Your task to perform on an android device: change keyboard looks Image 0: 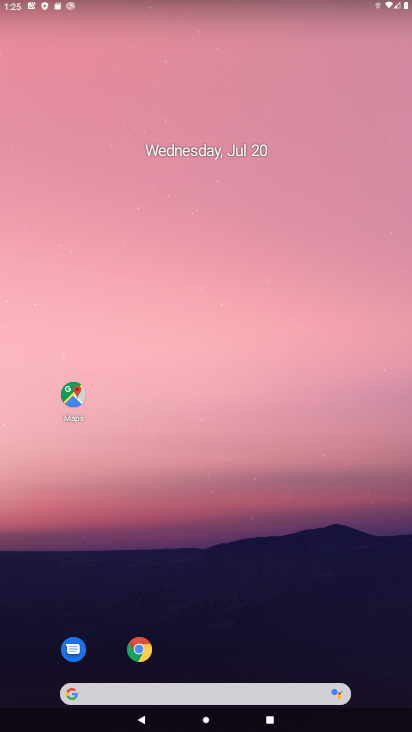
Step 0: press home button
Your task to perform on an android device: change keyboard looks Image 1: 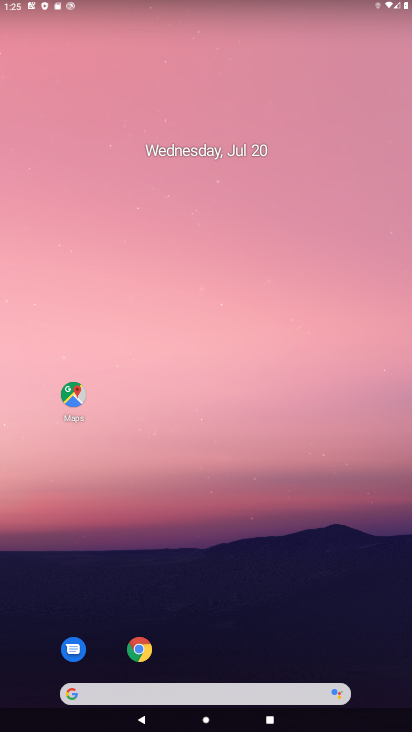
Step 1: press home button
Your task to perform on an android device: change keyboard looks Image 2: 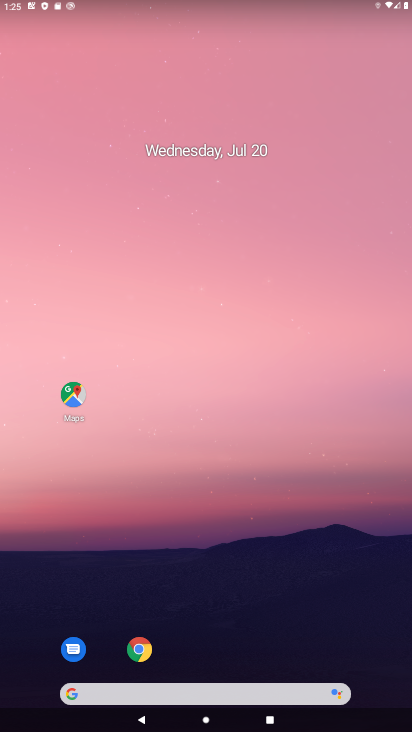
Step 2: press home button
Your task to perform on an android device: change keyboard looks Image 3: 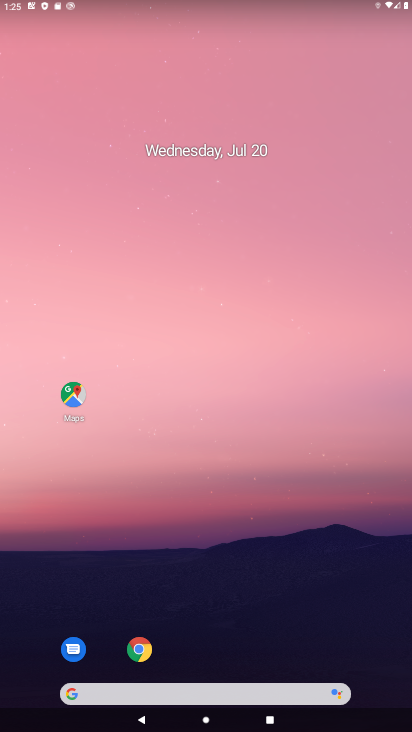
Step 3: drag from (315, 646) to (386, 24)
Your task to perform on an android device: change keyboard looks Image 4: 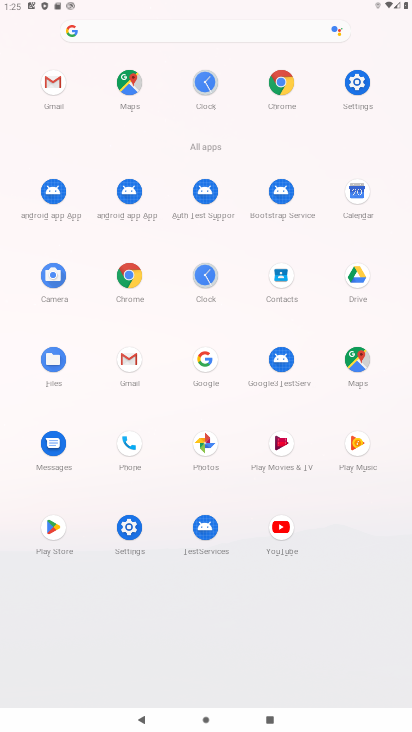
Step 4: click (127, 548)
Your task to perform on an android device: change keyboard looks Image 5: 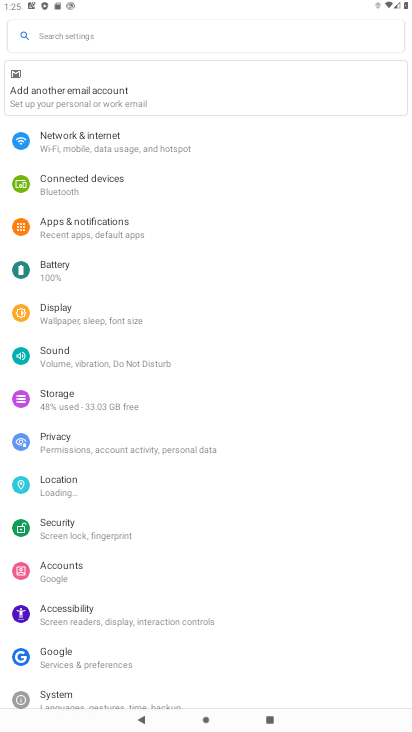
Step 5: drag from (131, 585) to (276, 265)
Your task to perform on an android device: change keyboard looks Image 6: 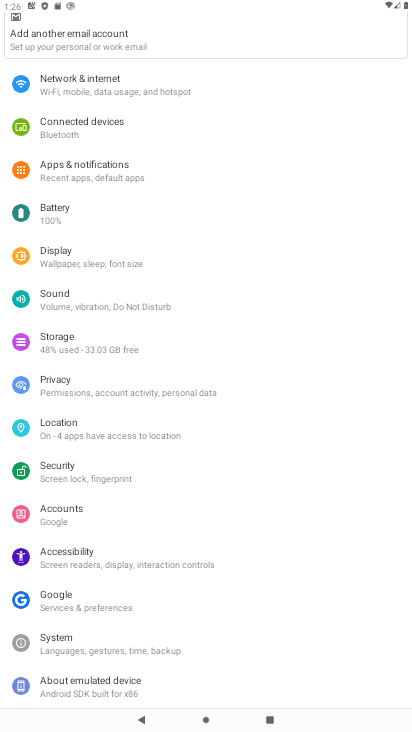
Step 6: click (129, 691)
Your task to perform on an android device: change keyboard looks Image 7: 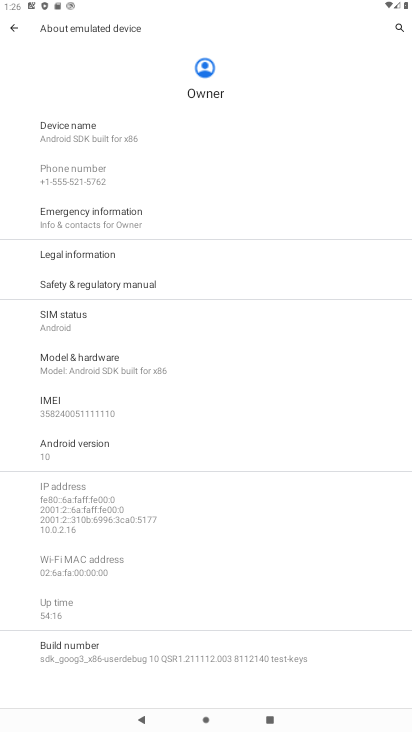
Step 7: press back button
Your task to perform on an android device: change keyboard looks Image 8: 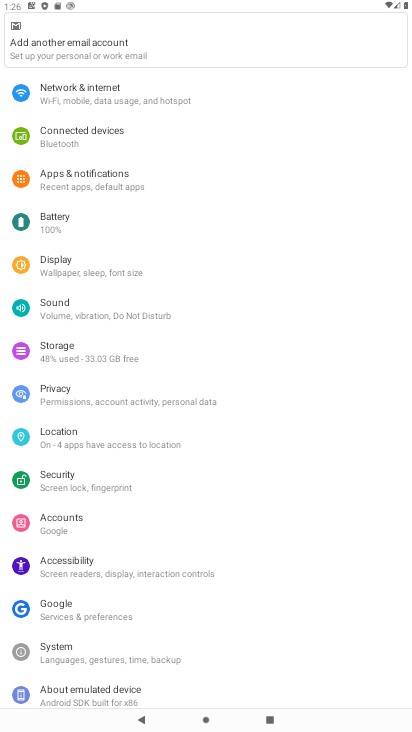
Step 8: click (101, 648)
Your task to perform on an android device: change keyboard looks Image 9: 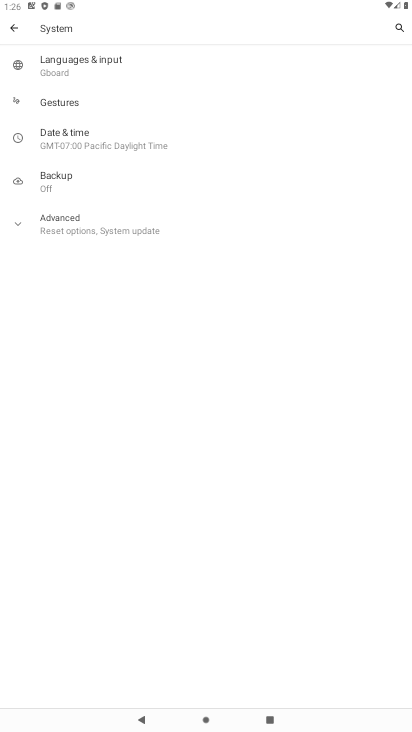
Step 9: click (94, 62)
Your task to perform on an android device: change keyboard looks Image 10: 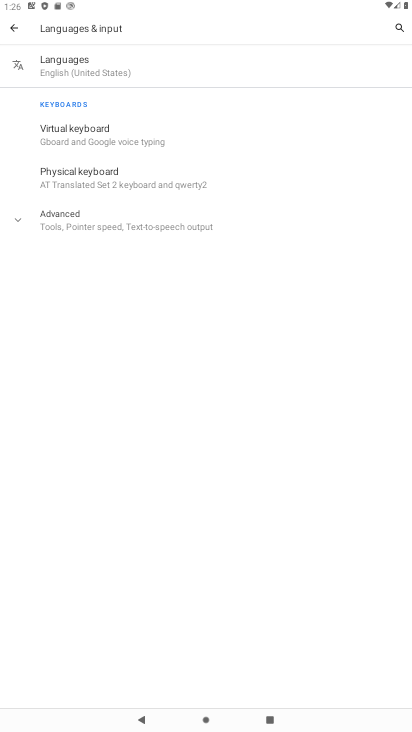
Step 10: click (104, 138)
Your task to perform on an android device: change keyboard looks Image 11: 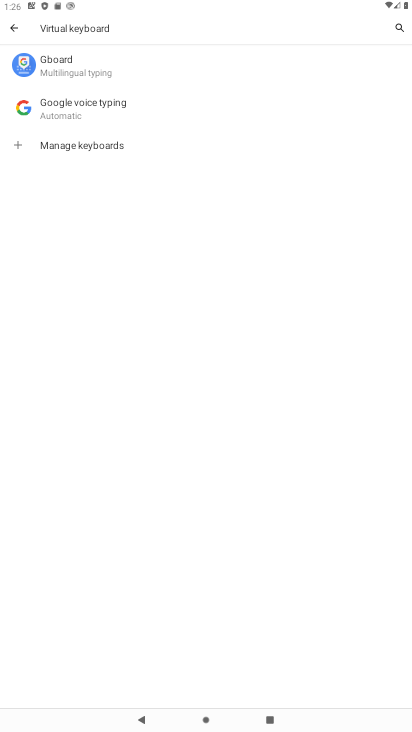
Step 11: click (72, 58)
Your task to perform on an android device: change keyboard looks Image 12: 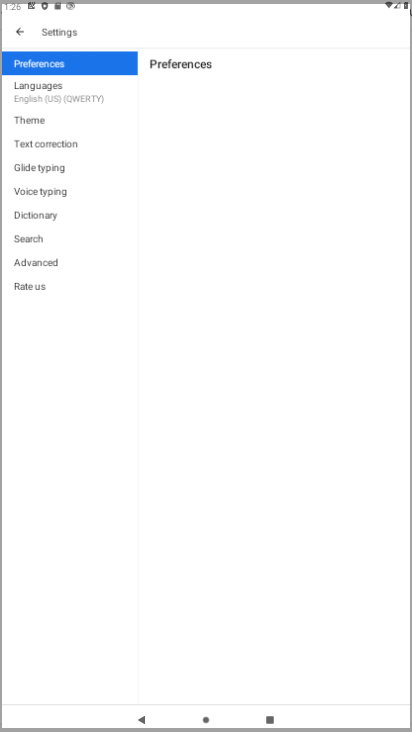
Step 12: click (89, 103)
Your task to perform on an android device: change keyboard looks Image 13: 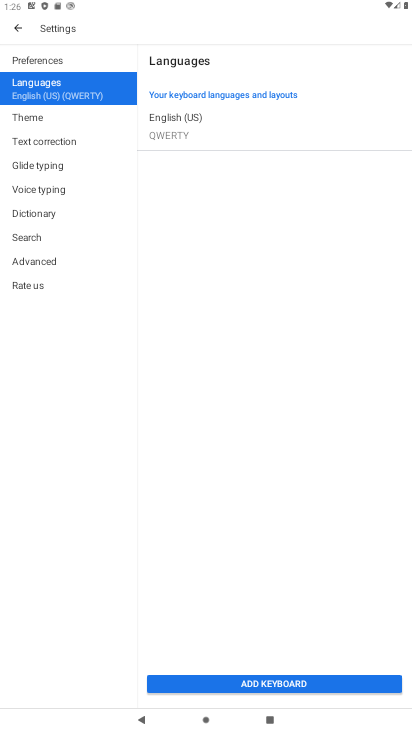
Step 13: click (58, 114)
Your task to perform on an android device: change keyboard looks Image 14: 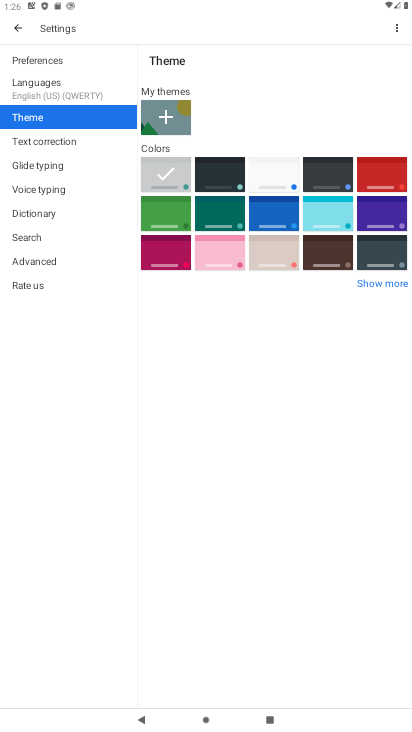
Step 14: click (227, 265)
Your task to perform on an android device: change keyboard looks Image 15: 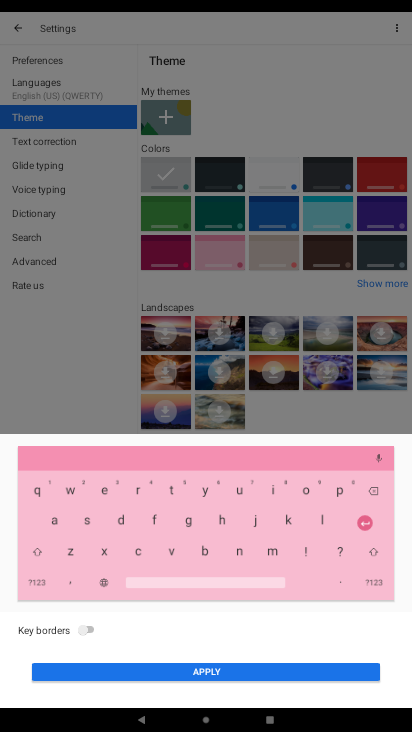
Step 15: click (235, 664)
Your task to perform on an android device: change keyboard looks Image 16: 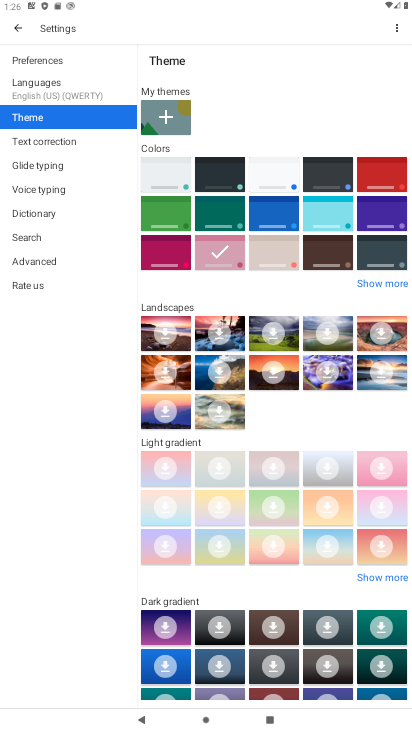
Step 16: task complete